Your task to perform on an android device: toggle notification dots Image 0: 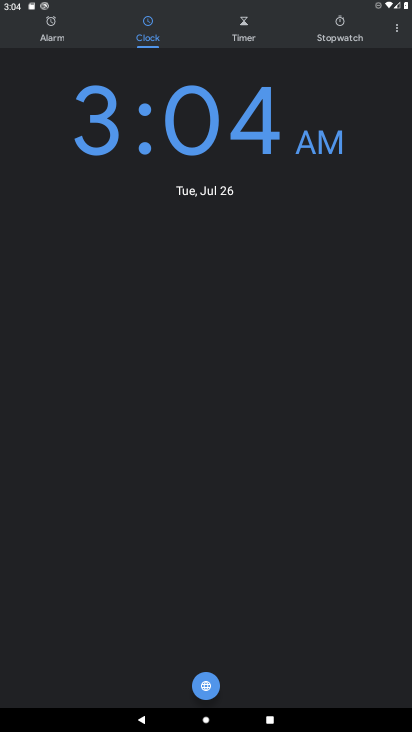
Step 0: press home button
Your task to perform on an android device: toggle notification dots Image 1: 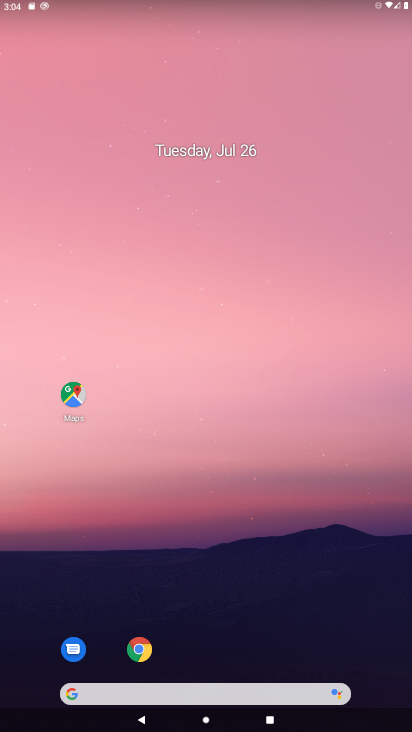
Step 1: drag from (228, 695) to (178, 115)
Your task to perform on an android device: toggle notification dots Image 2: 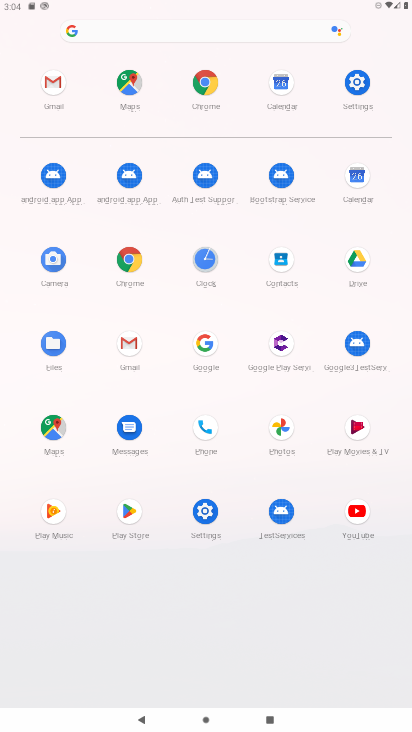
Step 2: click (359, 95)
Your task to perform on an android device: toggle notification dots Image 3: 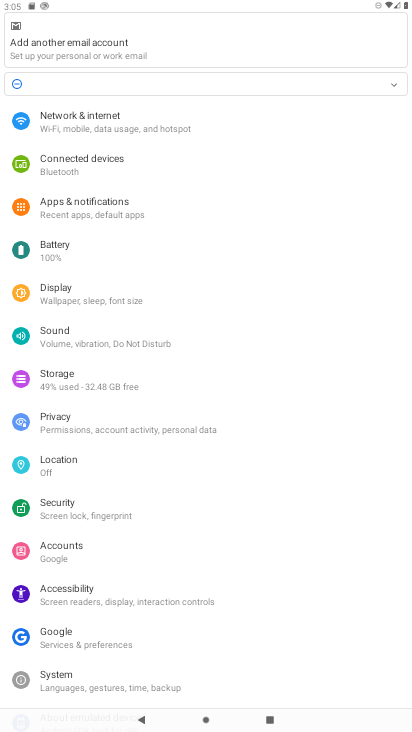
Step 3: click (109, 211)
Your task to perform on an android device: toggle notification dots Image 4: 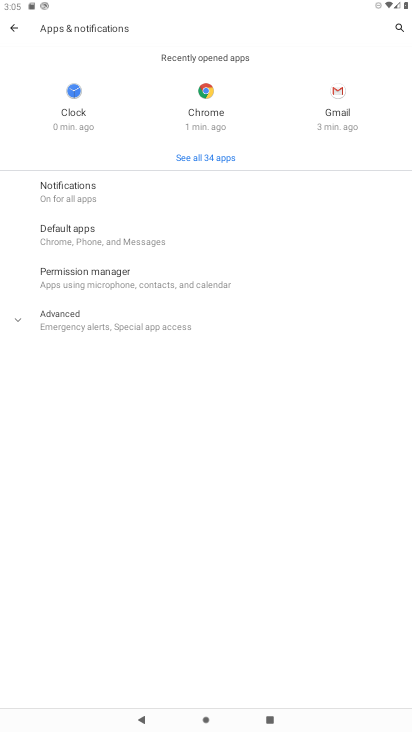
Step 4: click (90, 198)
Your task to perform on an android device: toggle notification dots Image 5: 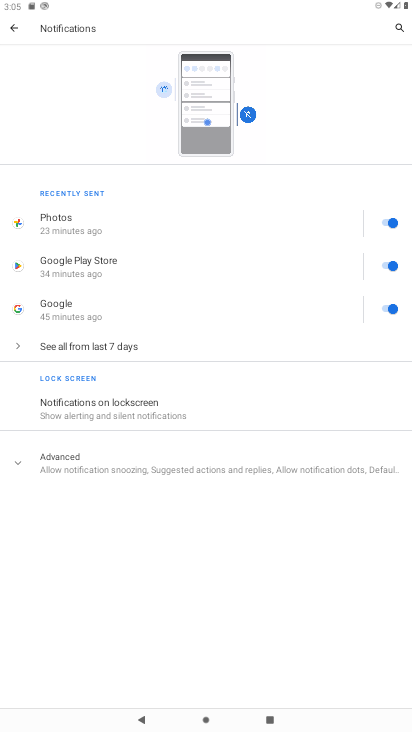
Step 5: click (232, 467)
Your task to perform on an android device: toggle notification dots Image 6: 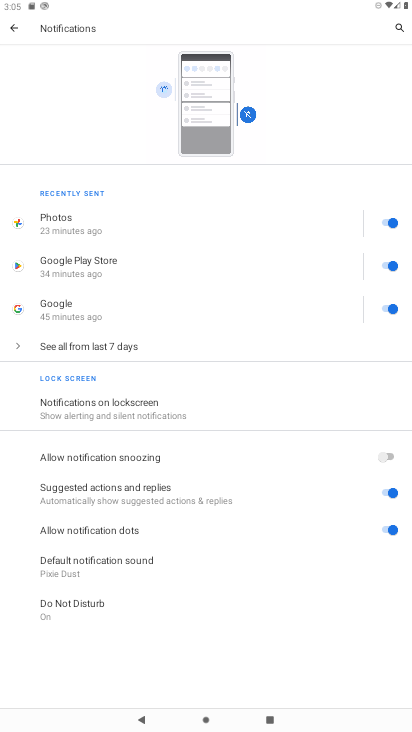
Step 6: click (395, 528)
Your task to perform on an android device: toggle notification dots Image 7: 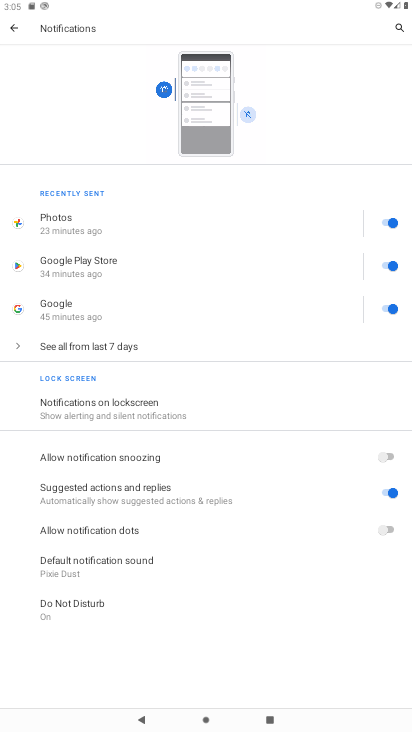
Step 7: task complete